Your task to perform on an android device: delete a single message in the gmail app Image 0: 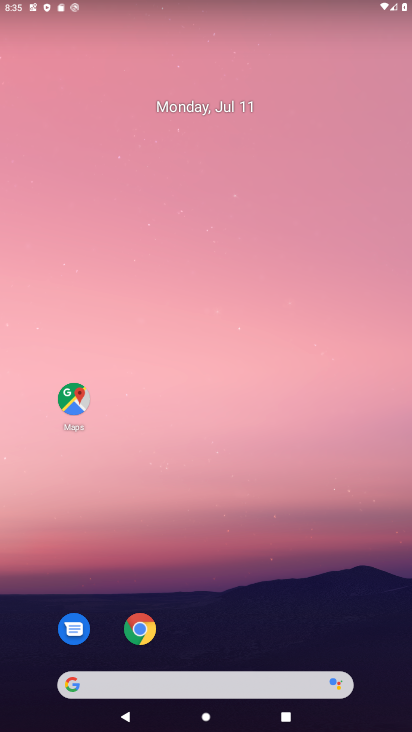
Step 0: drag from (181, 653) to (300, 95)
Your task to perform on an android device: delete a single message in the gmail app Image 1: 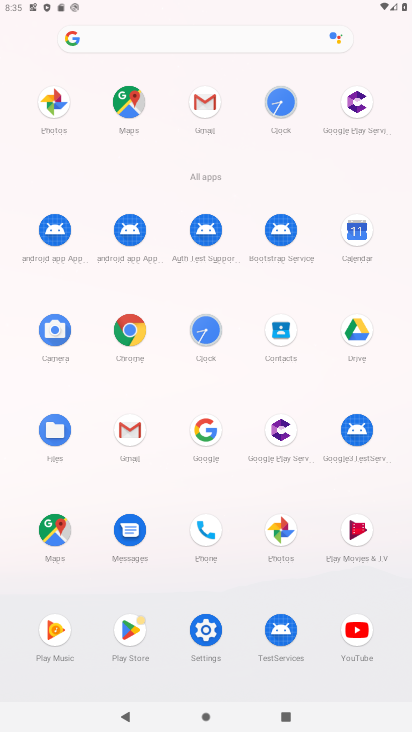
Step 1: click (218, 107)
Your task to perform on an android device: delete a single message in the gmail app Image 2: 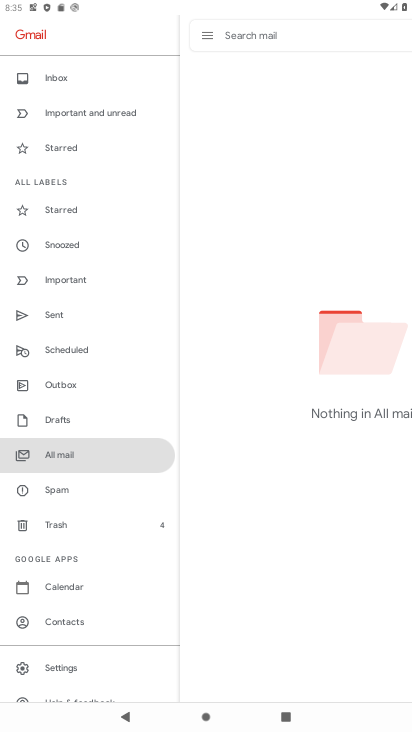
Step 2: task complete